Your task to perform on an android device: Go to eBay Image 0: 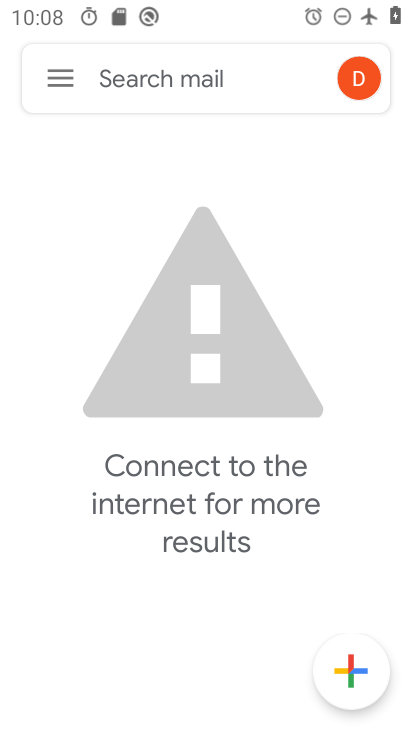
Step 0: press home button
Your task to perform on an android device: Go to eBay Image 1: 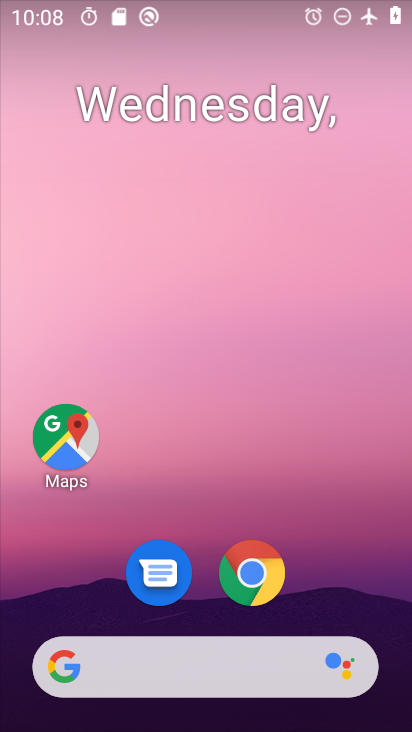
Step 1: click (244, 591)
Your task to perform on an android device: Go to eBay Image 2: 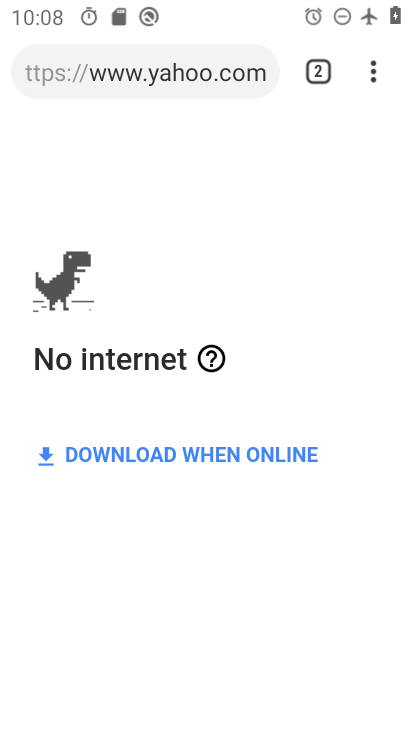
Step 2: click (240, 86)
Your task to perform on an android device: Go to eBay Image 3: 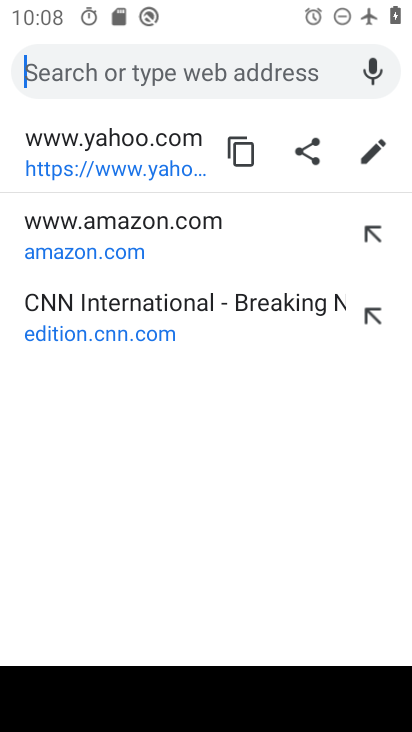
Step 3: type "eday"
Your task to perform on an android device: Go to eBay Image 4: 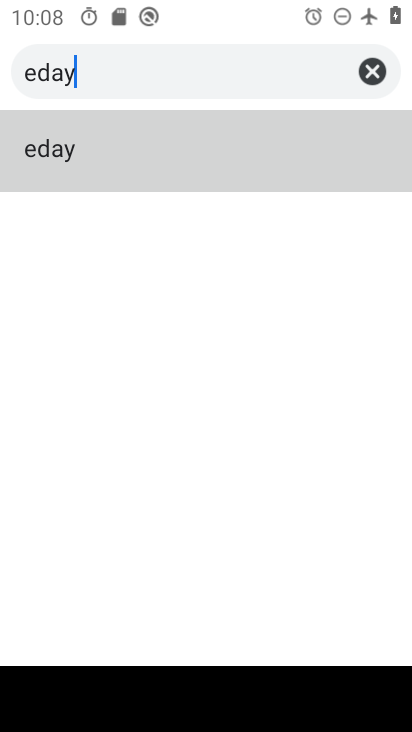
Step 4: click (200, 156)
Your task to perform on an android device: Go to eBay Image 5: 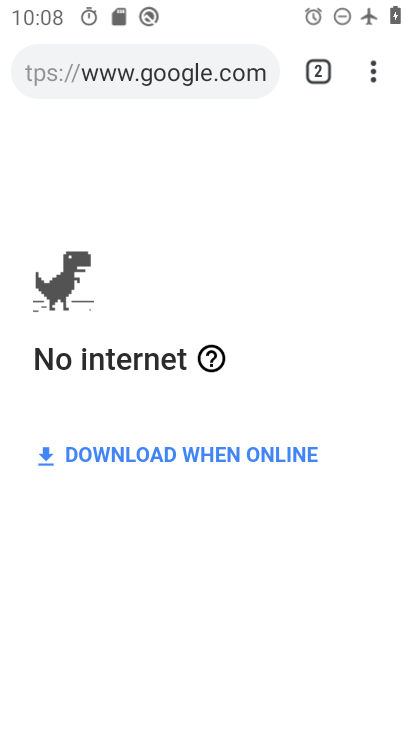
Step 5: task complete